Your task to perform on an android device: Open calendar and show me the third week of next month Image 0: 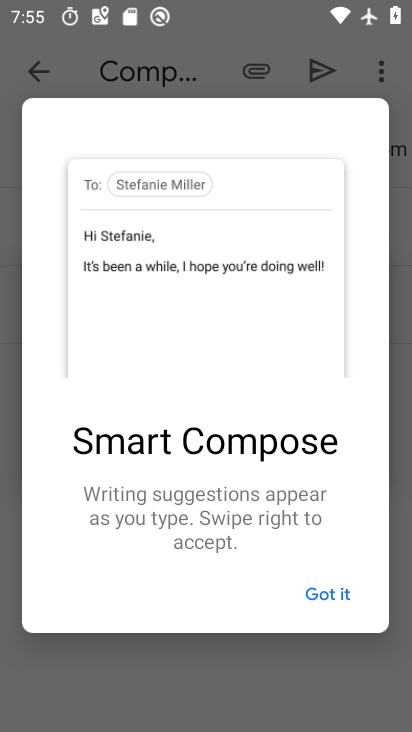
Step 0: press home button
Your task to perform on an android device: Open calendar and show me the third week of next month Image 1: 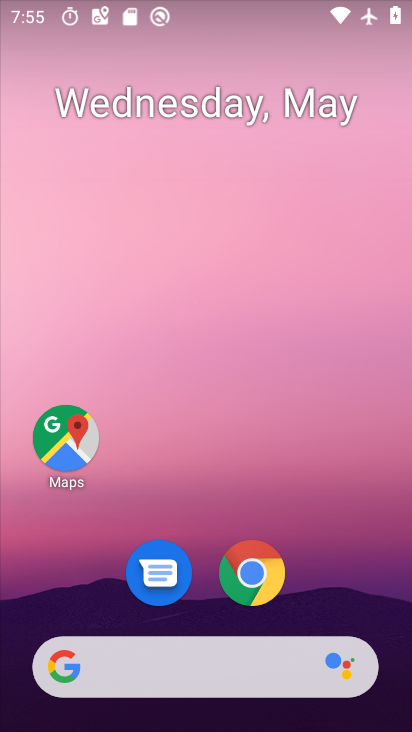
Step 1: drag from (316, 607) to (241, 72)
Your task to perform on an android device: Open calendar and show me the third week of next month Image 2: 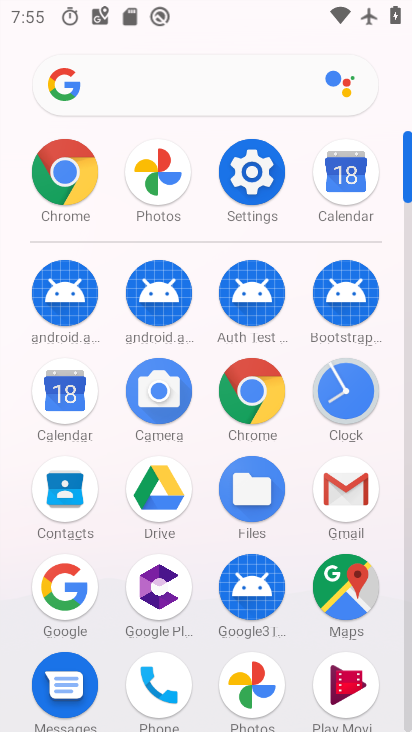
Step 2: click (60, 378)
Your task to perform on an android device: Open calendar and show me the third week of next month Image 3: 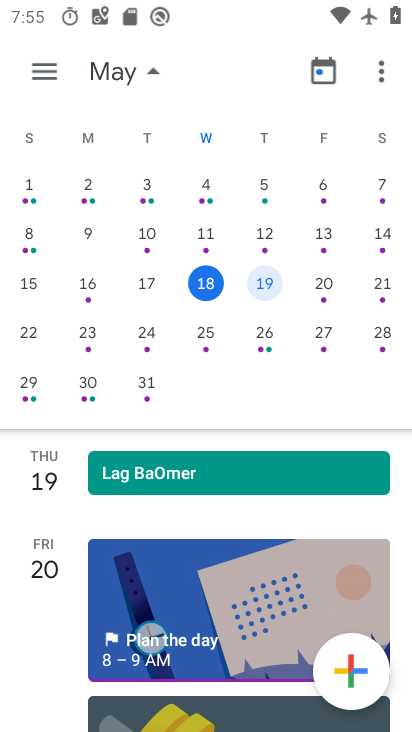
Step 3: drag from (360, 234) to (1, 352)
Your task to perform on an android device: Open calendar and show me the third week of next month Image 4: 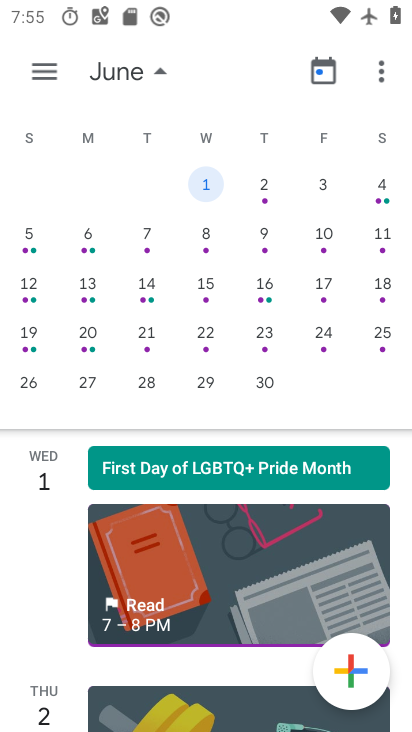
Step 4: click (39, 291)
Your task to perform on an android device: Open calendar and show me the third week of next month Image 5: 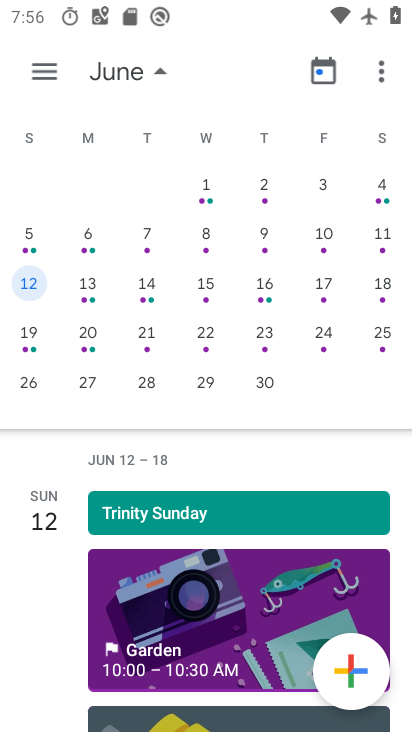
Step 5: task complete